Your task to perform on an android device: Search for vegetarian restaurants on Maps Image 0: 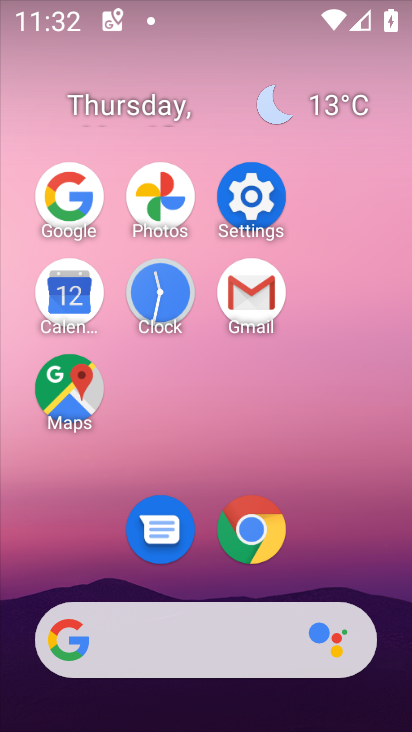
Step 0: click (70, 410)
Your task to perform on an android device: Search for vegetarian restaurants on Maps Image 1: 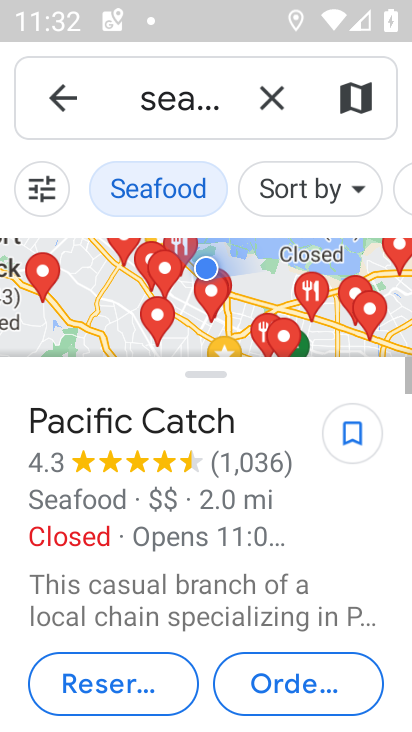
Step 1: click (279, 80)
Your task to perform on an android device: Search for vegetarian restaurants on Maps Image 2: 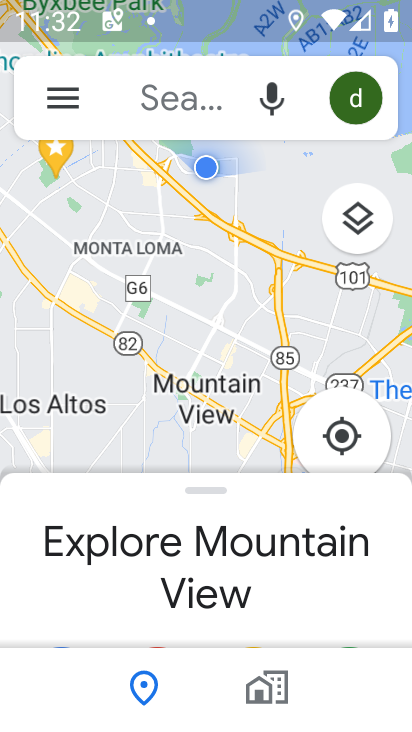
Step 2: click (135, 97)
Your task to perform on an android device: Search for vegetarian restaurants on Maps Image 3: 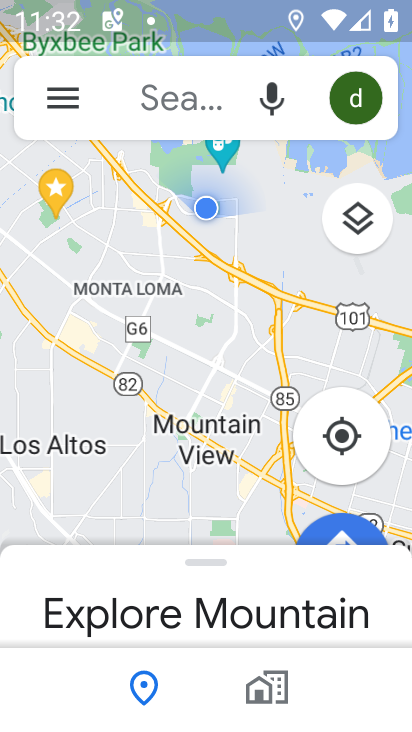
Step 3: click (185, 97)
Your task to perform on an android device: Search for vegetarian restaurants on Maps Image 4: 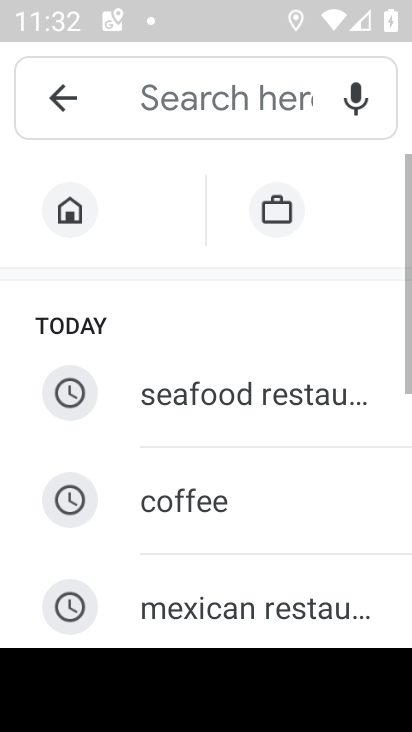
Step 4: drag from (256, 529) to (268, 173)
Your task to perform on an android device: Search for vegetarian restaurants on Maps Image 5: 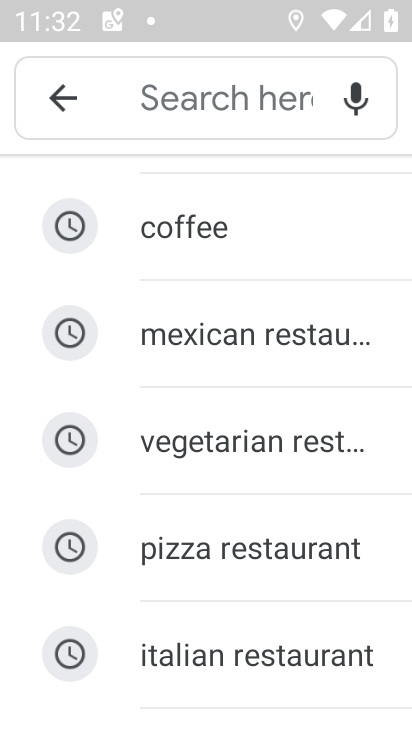
Step 5: click (268, 432)
Your task to perform on an android device: Search for vegetarian restaurants on Maps Image 6: 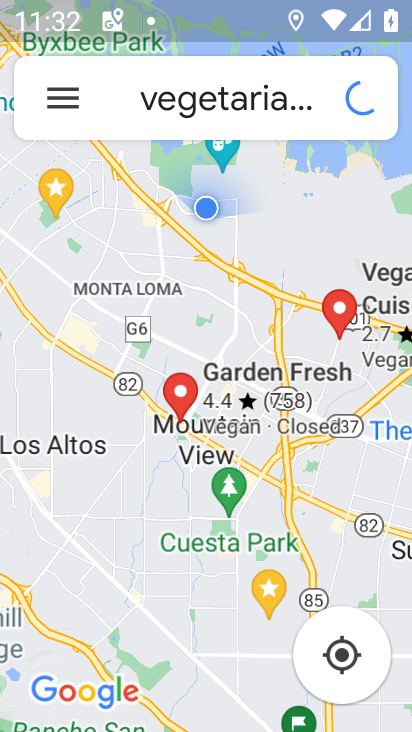
Step 6: task complete